Your task to perform on an android device: Open CNN.com Image 0: 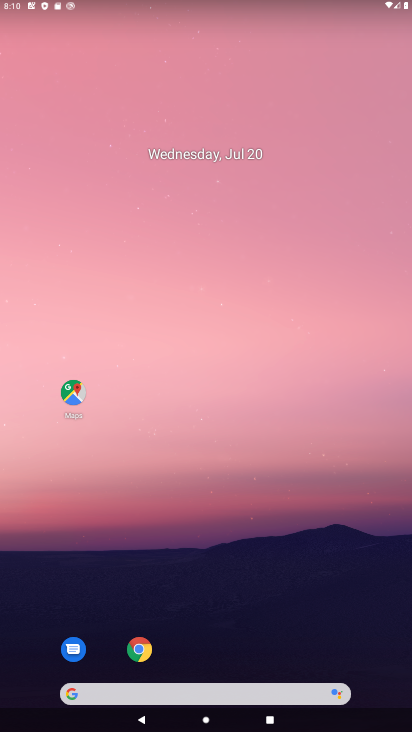
Step 0: click (140, 658)
Your task to perform on an android device: Open CNN.com Image 1: 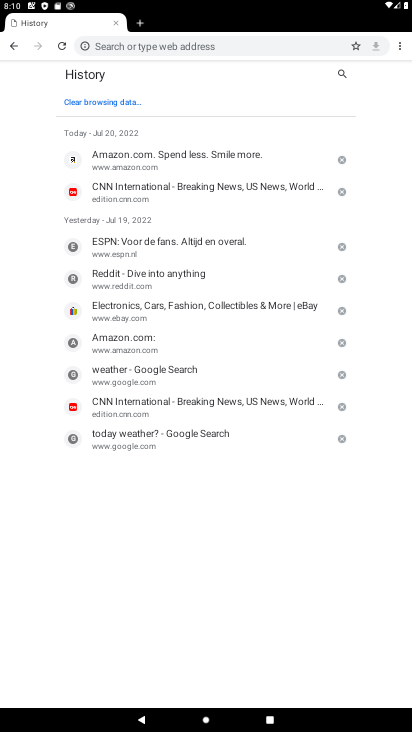
Step 1: click (138, 24)
Your task to perform on an android device: Open CNN.com Image 2: 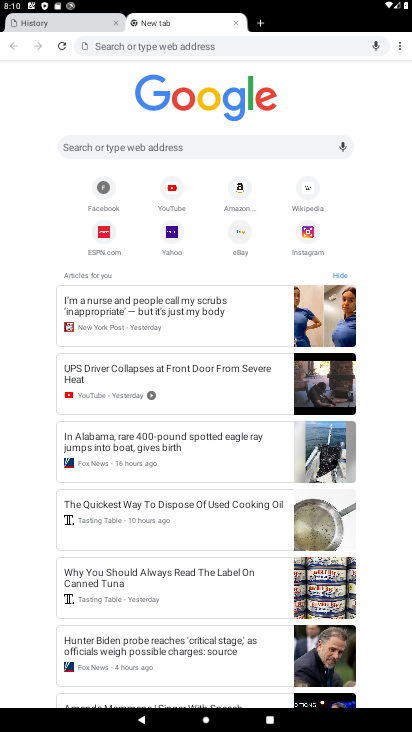
Step 2: click (188, 144)
Your task to perform on an android device: Open CNN.com Image 3: 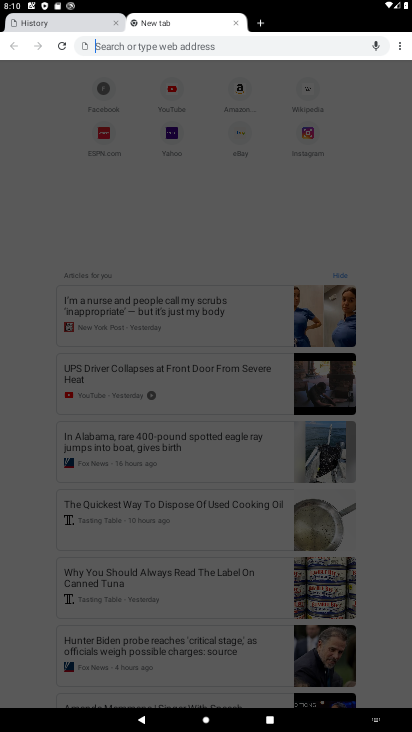
Step 3: type "cnn"
Your task to perform on an android device: Open CNN.com Image 4: 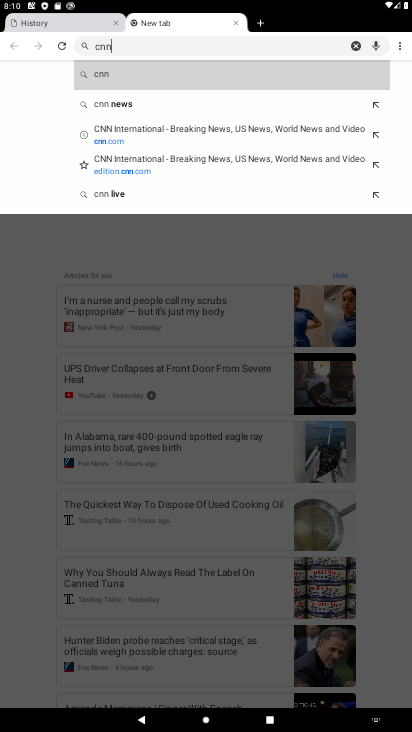
Step 4: click (133, 130)
Your task to perform on an android device: Open CNN.com Image 5: 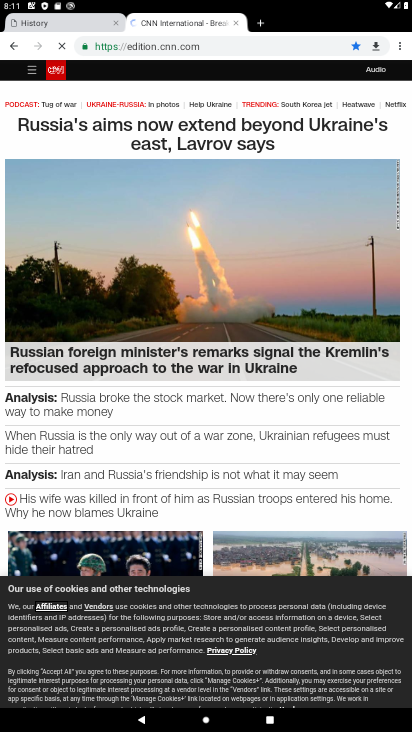
Step 5: task complete